Your task to perform on an android device: Toggle the flashlight Image 0: 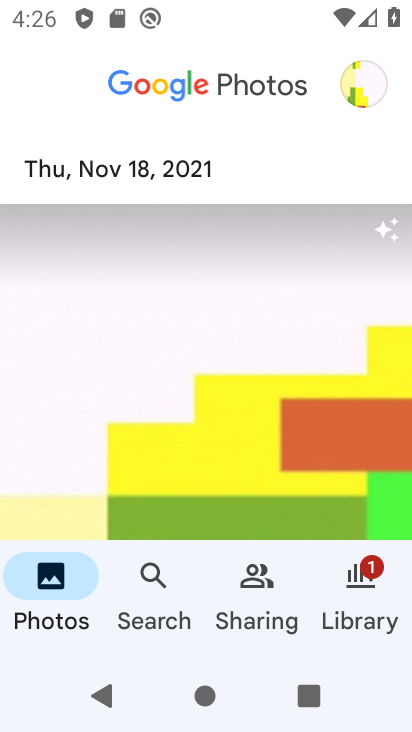
Step 0: press home button
Your task to perform on an android device: Toggle the flashlight Image 1: 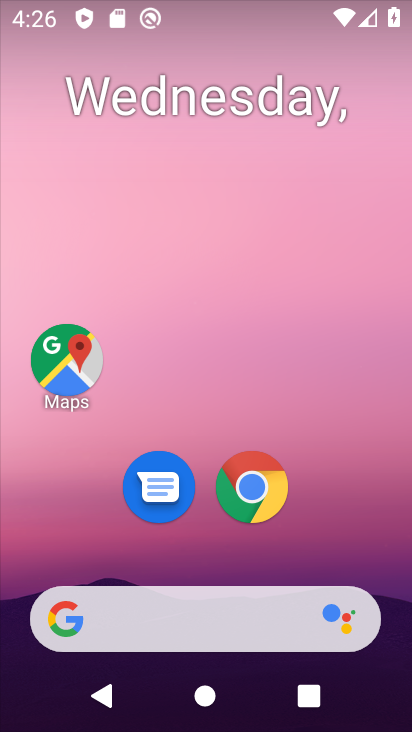
Step 1: drag from (201, 554) to (200, 24)
Your task to perform on an android device: Toggle the flashlight Image 2: 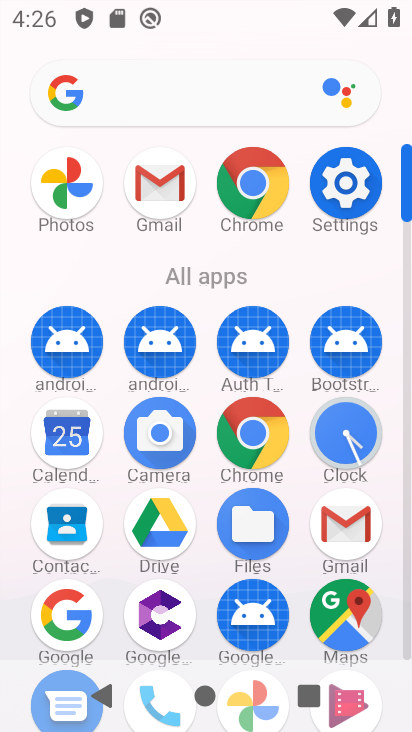
Step 2: click (338, 172)
Your task to perform on an android device: Toggle the flashlight Image 3: 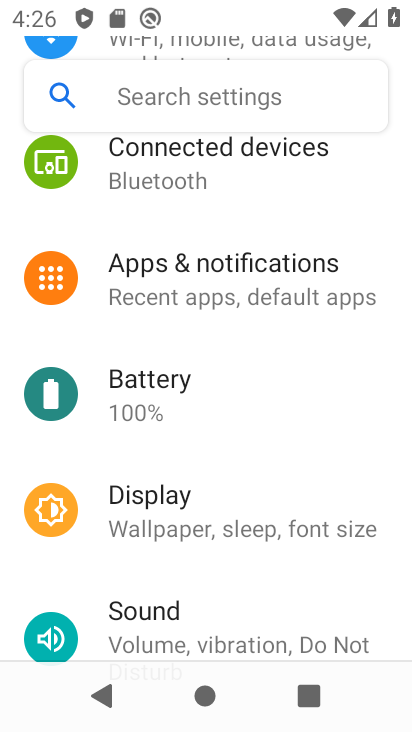
Step 3: click (155, 86)
Your task to perform on an android device: Toggle the flashlight Image 4: 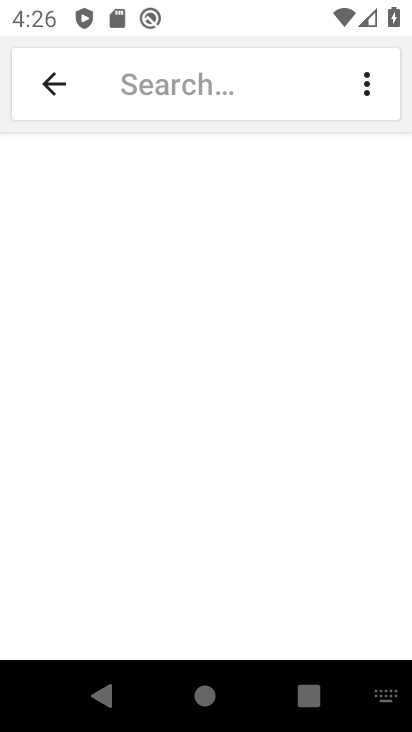
Step 4: type "flashlight"
Your task to perform on an android device: Toggle the flashlight Image 5: 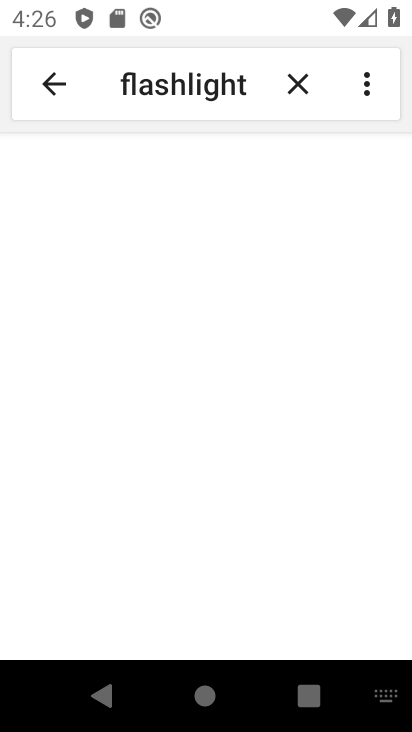
Step 5: task complete